Your task to perform on an android device: Open calendar and show me the second week of next month Image 0: 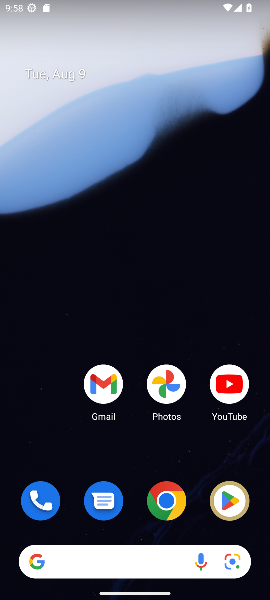
Step 0: drag from (147, 528) to (131, 159)
Your task to perform on an android device: Open calendar and show me the second week of next month Image 1: 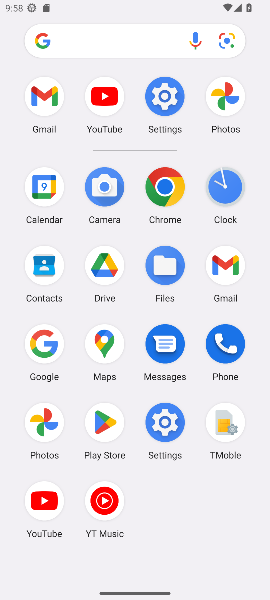
Step 1: click (38, 214)
Your task to perform on an android device: Open calendar and show me the second week of next month Image 2: 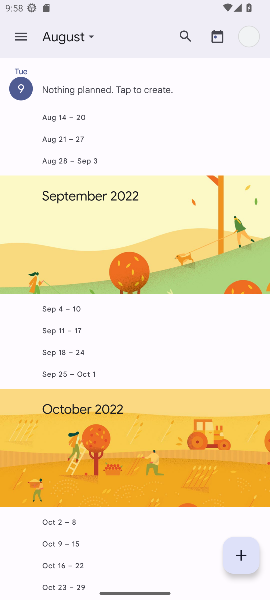
Step 2: click (21, 35)
Your task to perform on an android device: Open calendar and show me the second week of next month Image 3: 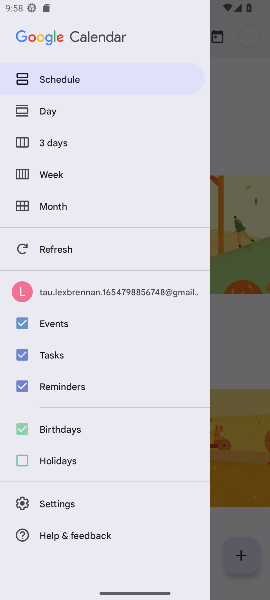
Step 3: click (42, 176)
Your task to perform on an android device: Open calendar and show me the second week of next month Image 4: 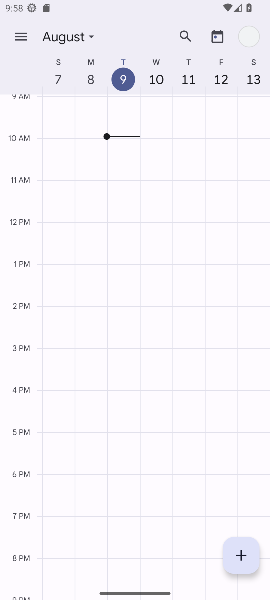
Step 4: click (67, 33)
Your task to perform on an android device: Open calendar and show me the second week of next month Image 5: 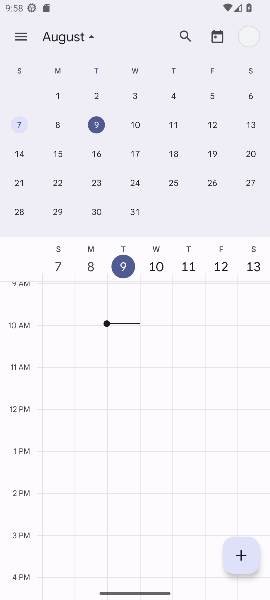
Step 5: drag from (217, 135) to (27, 164)
Your task to perform on an android device: Open calendar and show me the second week of next month Image 6: 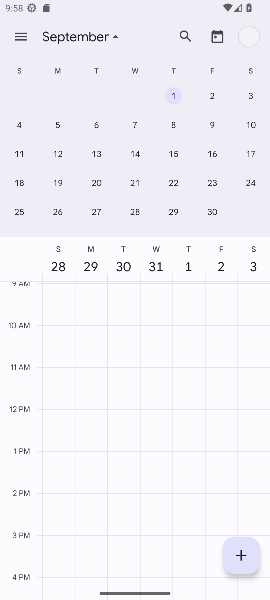
Step 6: click (19, 121)
Your task to perform on an android device: Open calendar and show me the second week of next month Image 7: 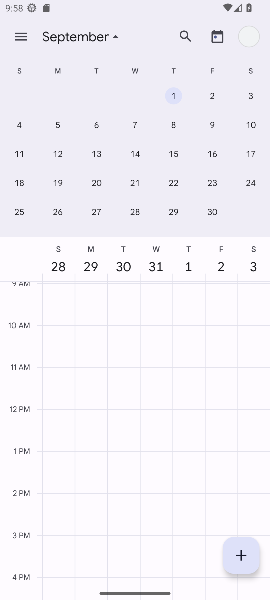
Step 7: click (19, 121)
Your task to perform on an android device: Open calendar and show me the second week of next month Image 8: 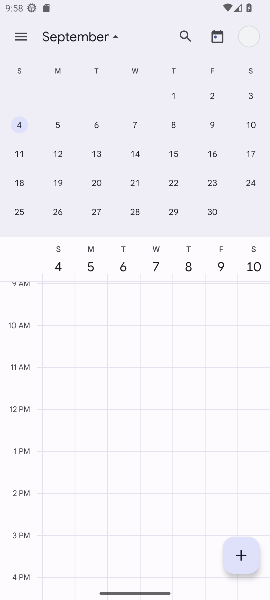
Step 8: task complete